Your task to perform on an android device: turn on airplane mode Image 0: 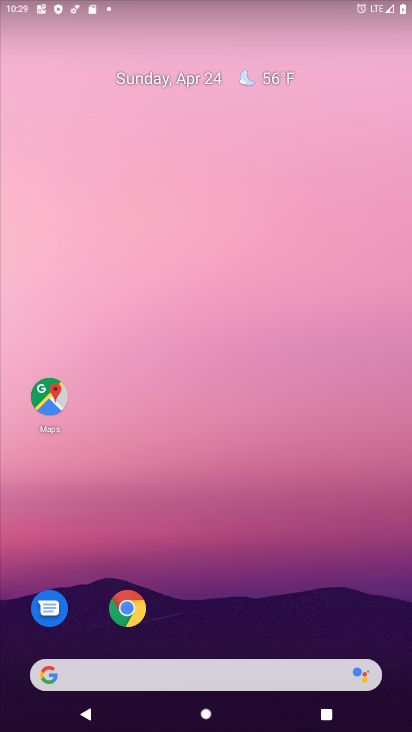
Step 0: drag from (238, 645) to (154, 663)
Your task to perform on an android device: turn on airplane mode Image 1: 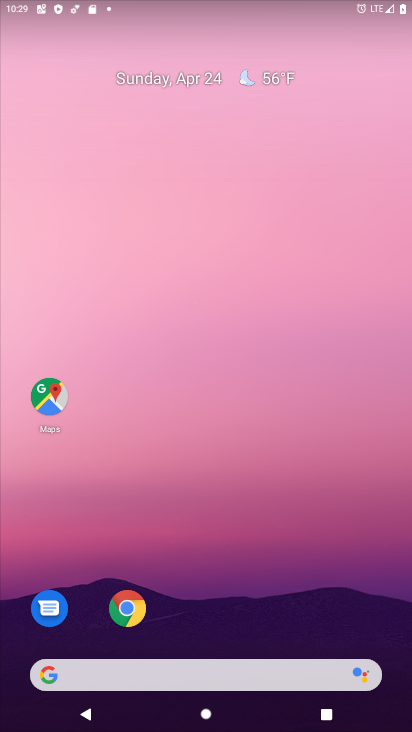
Step 1: drag from (194, 632) to (229, 2)
Your task to perform on an android device: turn on airplane mode Image 2: 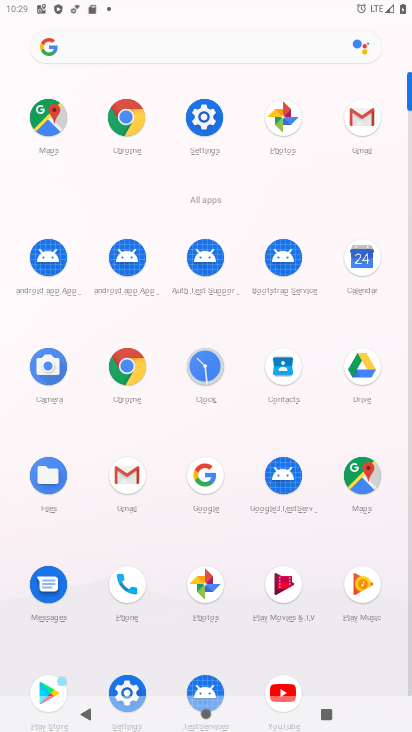
Step 2: click (133, 687)
Your task to perform on an android device: turn on airplane mode Image 3: 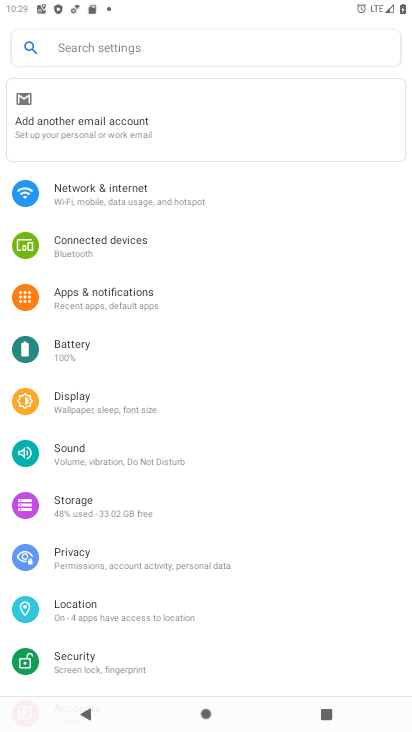
Step 3: click (125, 194)
Your task to perform on an android device: turn on airplane mode Image 4: 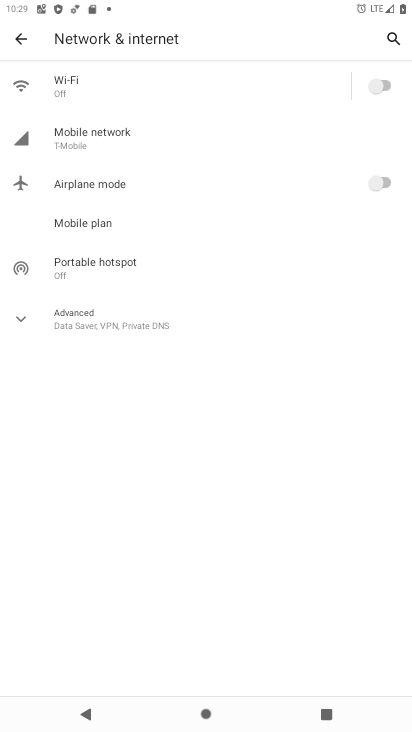
Step 4: click (383, 189)
Your task to perform on an android device: turn on airplane mode Image 5: 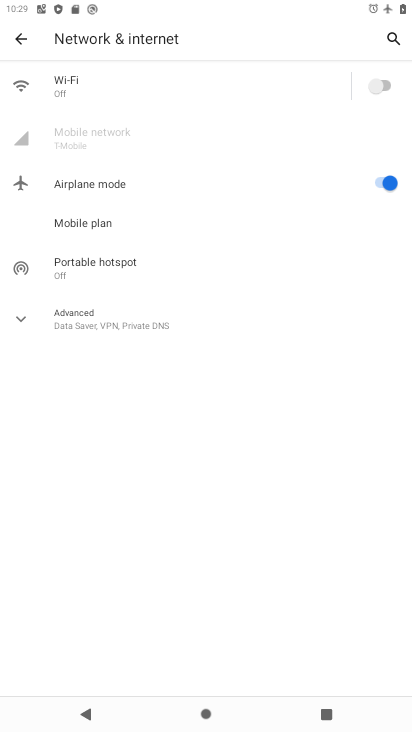
Step 5: task complete